Your task to perform on an android device: What's the weather? Image 0: 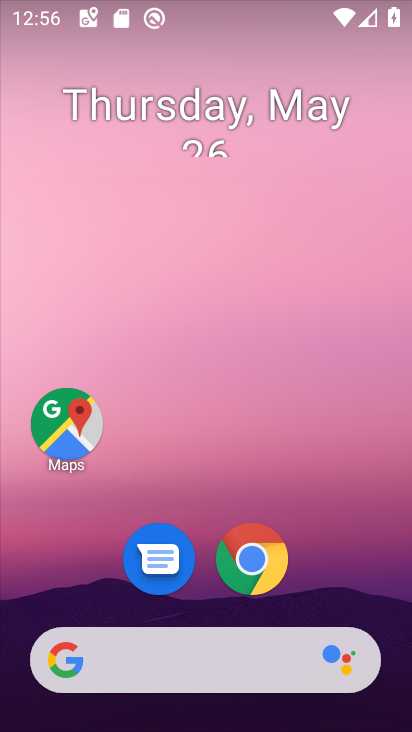
Step 0: press home button
Your task to perform on an android device: What's the weather? Image 1: 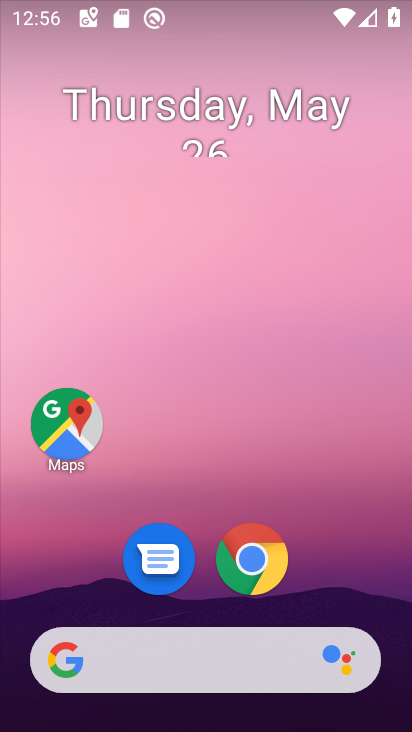
Step 1: click (63, 665)
Your task to perform on an android device: What's the weather? Image 2: 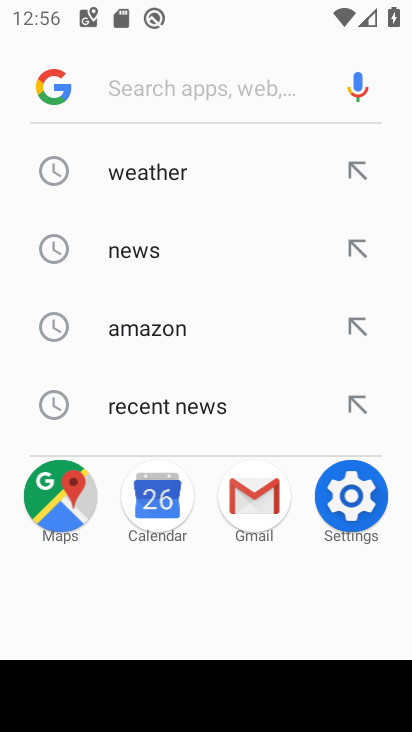
Step 2: click (141, 180)
Your task to perform on an android device: What's the weather? Image 3: 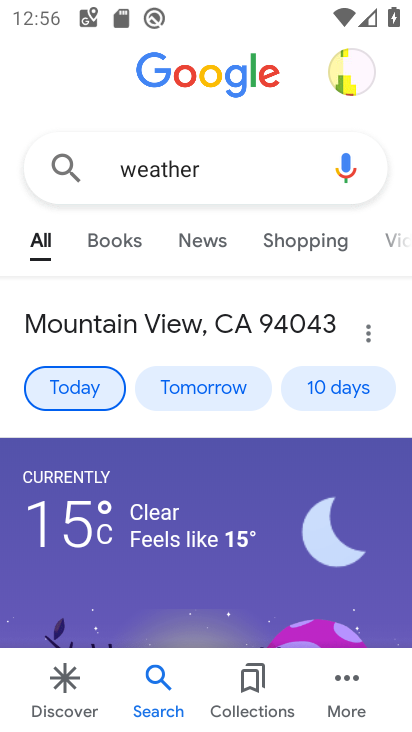
Step 3: task complete